Your task to perform on an android device: Open Yahoo.com Image 0: 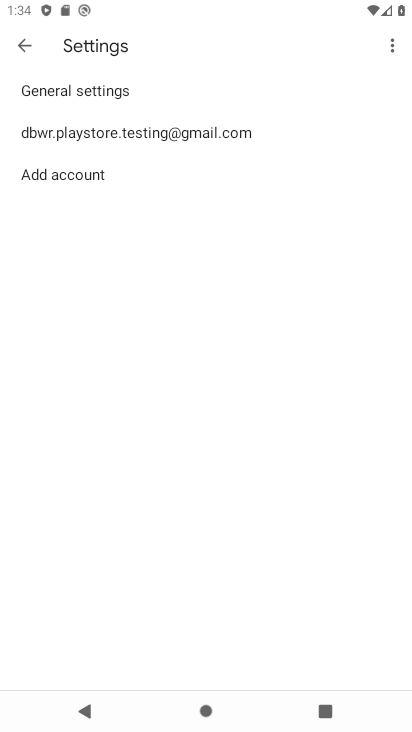
Step 0: press home button
Your task to perform on an android device: Open Yahoo.com Image 1: 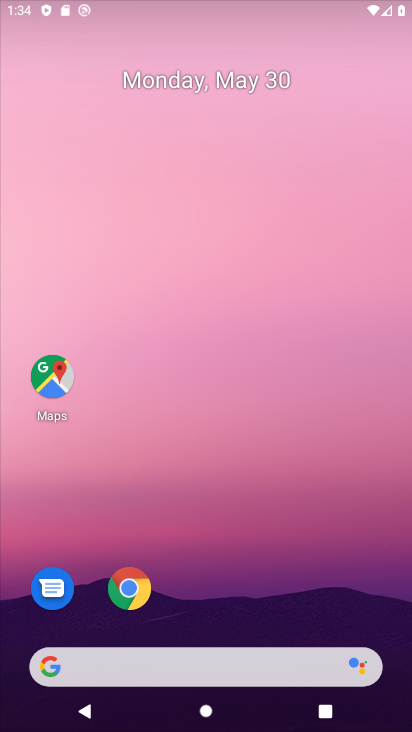
Step 1: drag from (285, 502) to (225, 41)
Your task to perform on an android device: Open Yahoo.com Image 2: 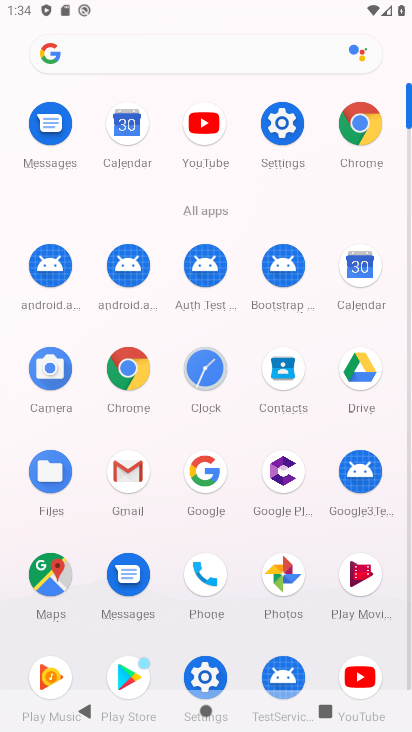
Step 2: click (136, 369)
Your task to perform on an android device: Open Yahoo.com Image 3: 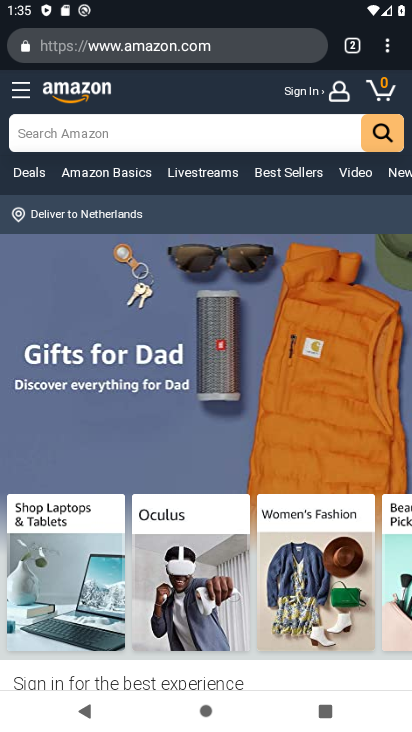
Step 3: click (356, 46)
Your task to perform on an android device: Open Yahoo.com Image 4: 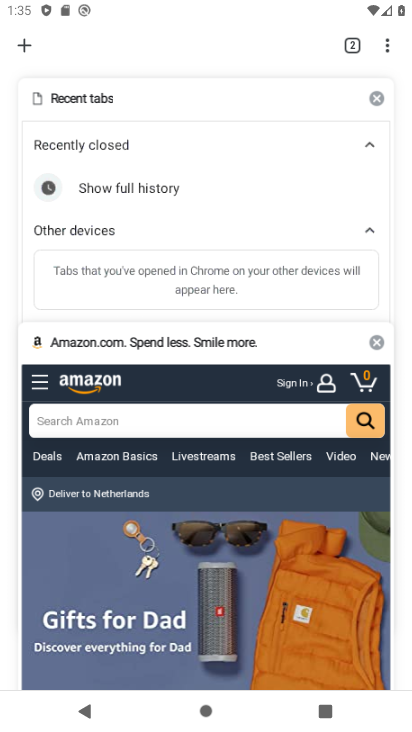
Step 4: click (27, 48)
Your task to perform on an android device: Open Yahoo.com Image 5: 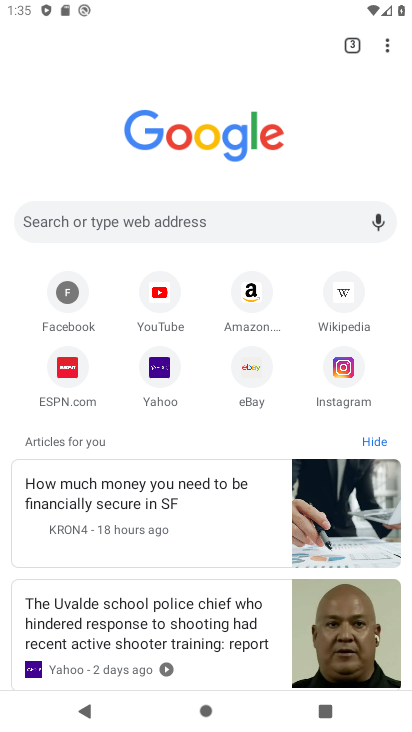
Step 5: click (165, 376)
Your task to perform on an android device: Open Yahoo.com Image 6: 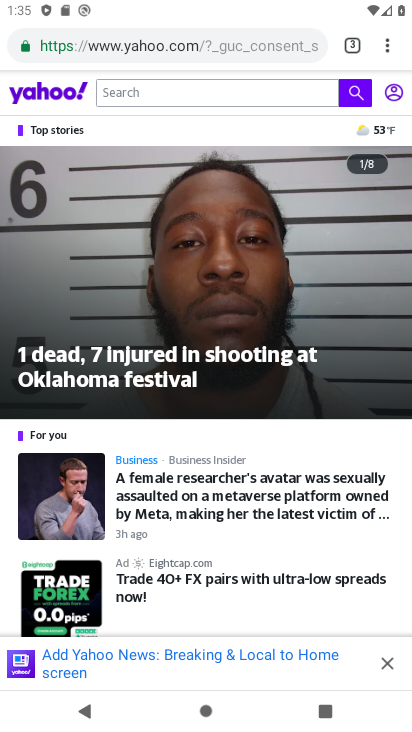
Step 6: task complete